Your task to perform on an android device: Open network settings Image 0: 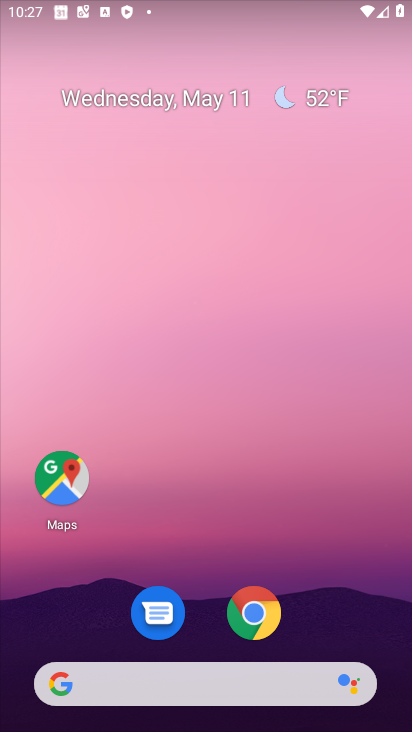
Step 0: drag from (228, 546) to (222, 211)
Your task to perform on an android device: Open network settings Image 1: 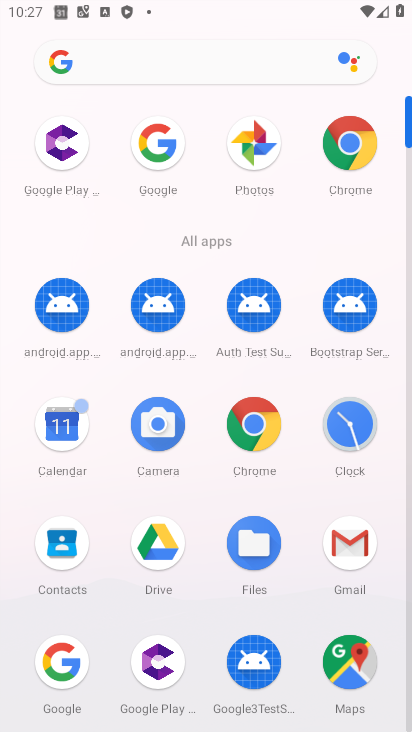
Step 1: drag from (194, 237) to (205, 36)
Your task to perform on an android device: Open network settings Image 2: 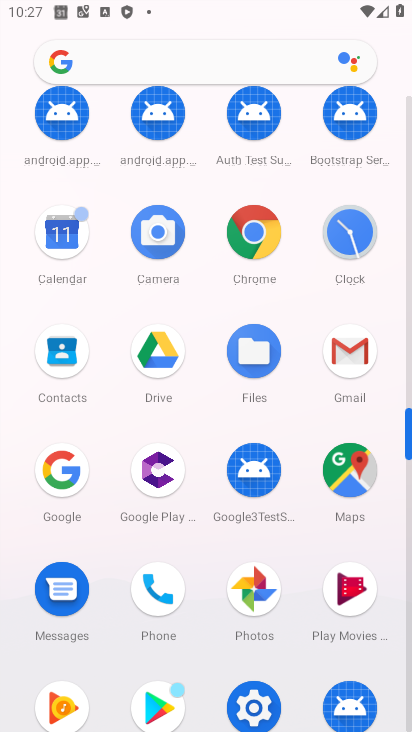
Step 2: click (251, 719)
Your task to perform on an android device: Open network settings Image 3: 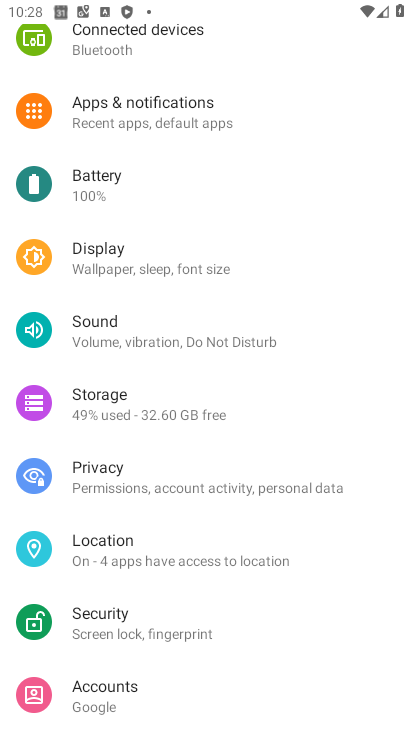
Step 3: drag from (147, 136) to (226, 723)
Your task to perform on an android device: Open network settings Image 4: 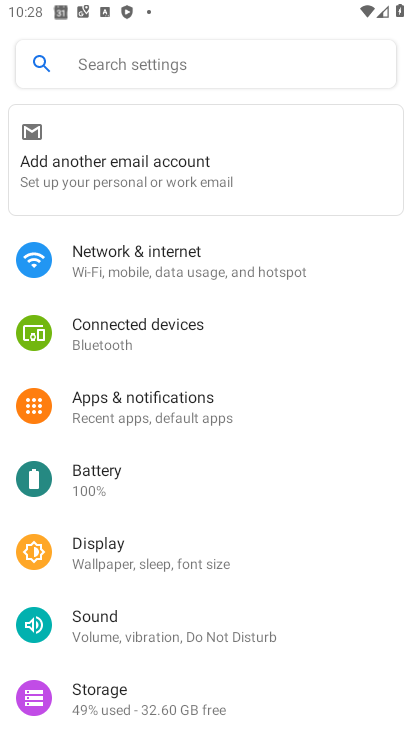
Step 4: click (205, 277)
Your task to perform on an android device: Open network settings Image 5: 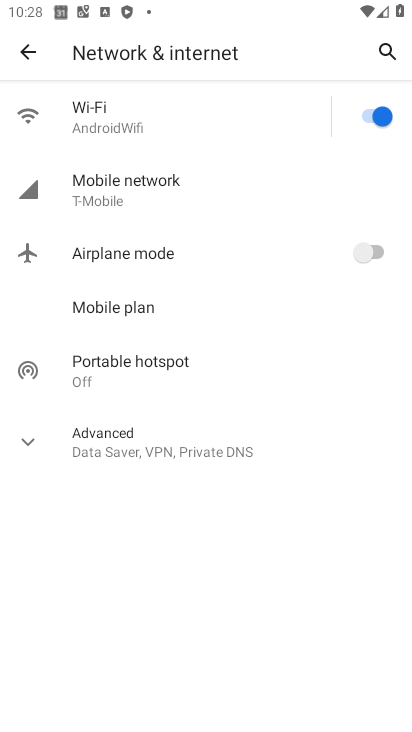
Step 5: click (163, 201)
Your task to perform on an android device: Open network settings Image 6: 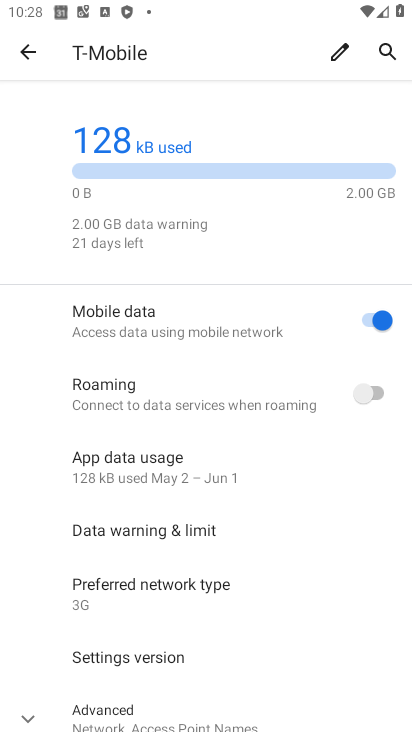
Step 6: task complete